Your task to perform on an android device: Go to eBay Image 0: 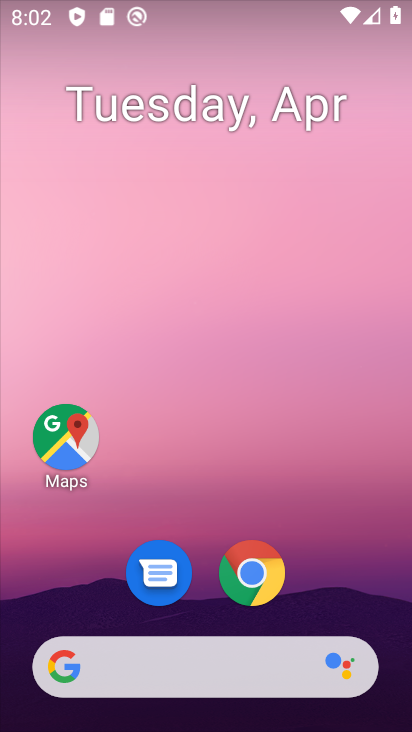
Step 0: click (262, 568)
Your task to perform on an android device: Go to eBay Image 1: 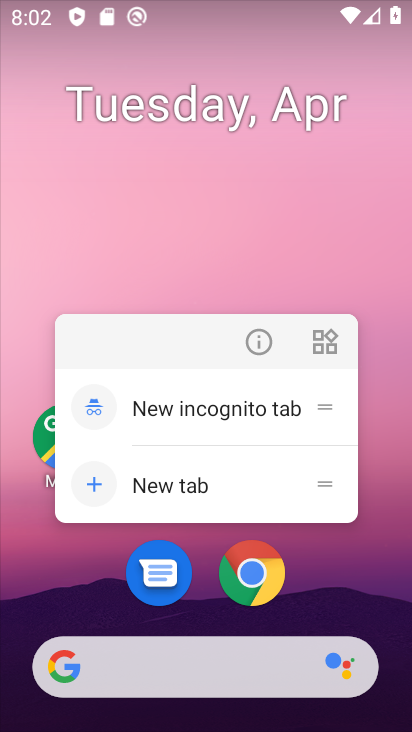
Step 1: click (226, 490)
Your task to perform on an android device: Go to eBay Image 2: 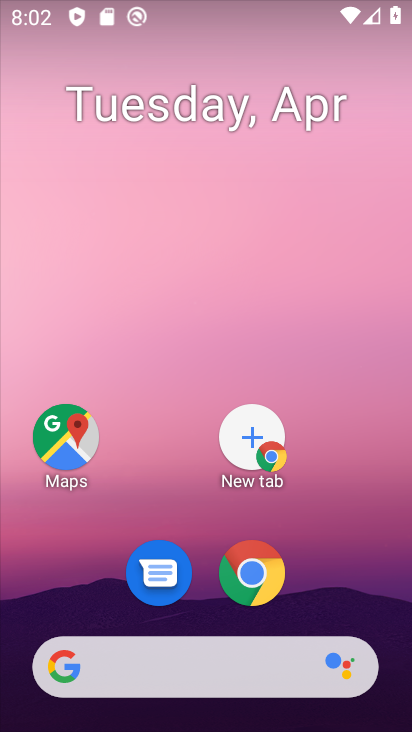
Step 2: click (235, 456)
Your task to perform on an android device: Go to eBay Image 3: 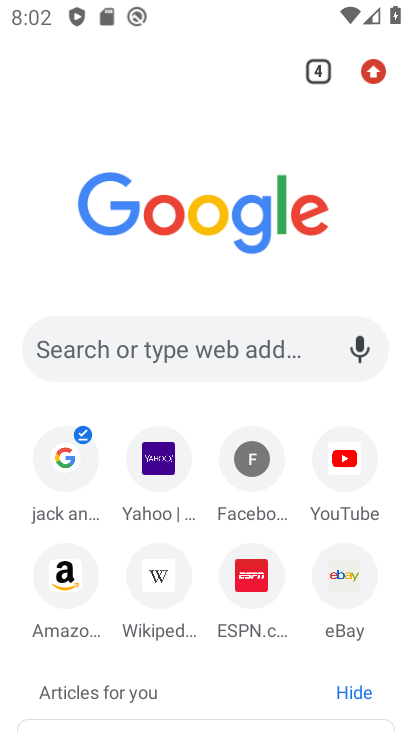
Step 3: click (343, 568)
Your task to perform on an android device: Go to eBay Image 4: 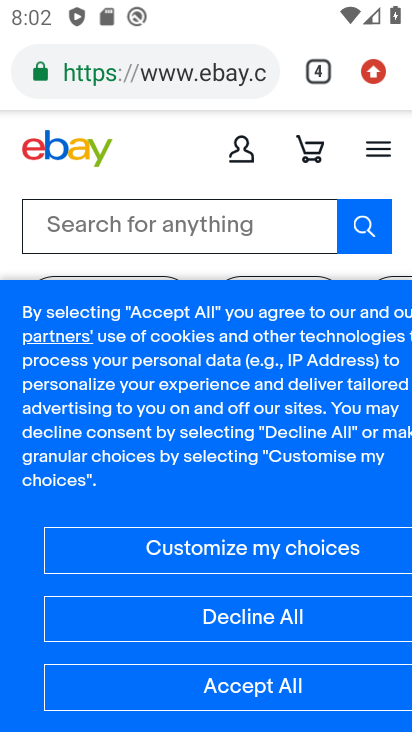
Step 4: task complete